Your task to perform on an android device: turn on notifications settings in the gmail app Image 0: 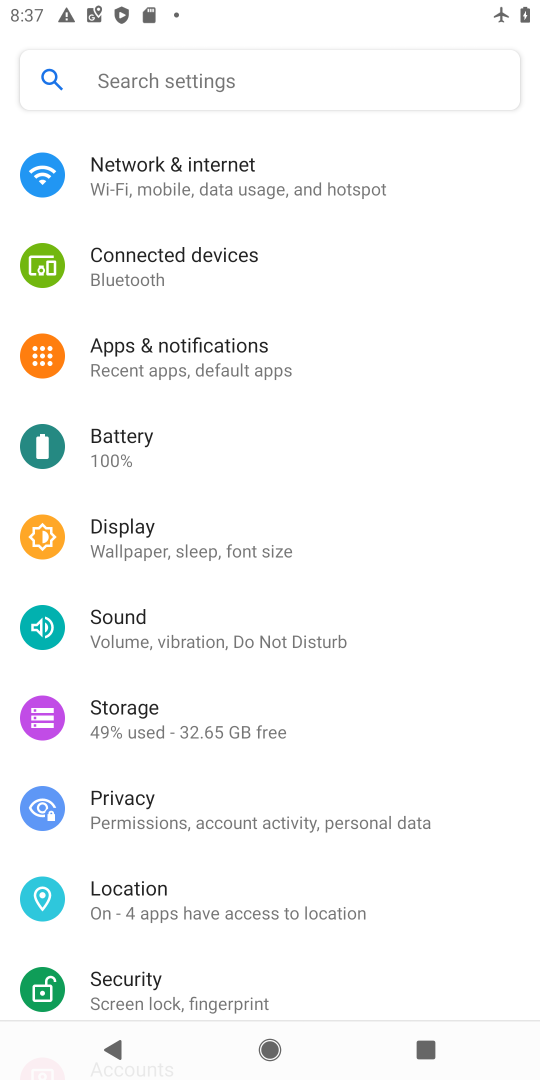
Step 0: press home button
Your task to perform on an android device: turn on notifications settings in the gmail app Image 1: 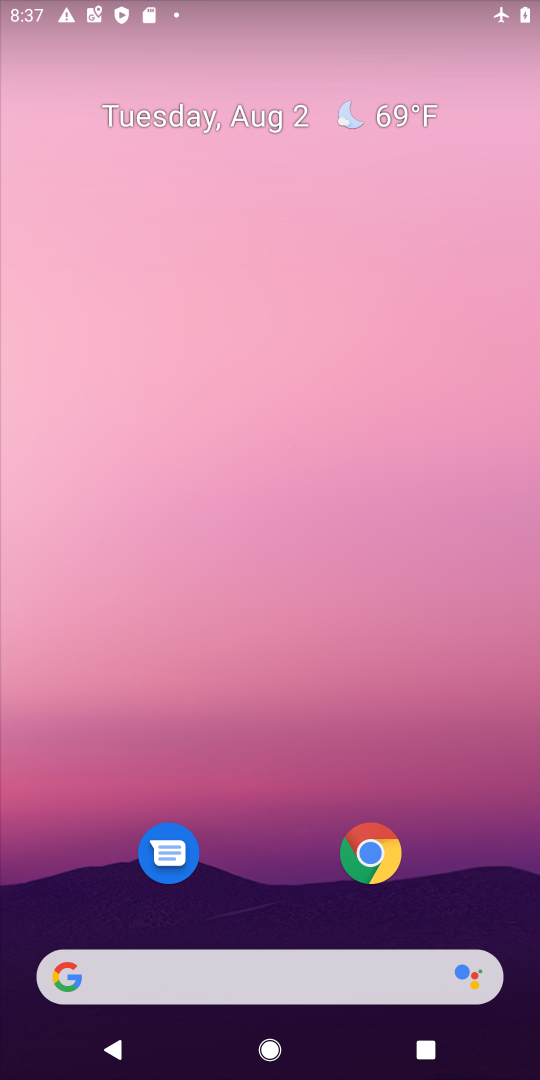
Step 1: drag from (233, 625) to (191, 85)
Your task to perform on an android device: turn on notifications settings in the gmail app Image 2: 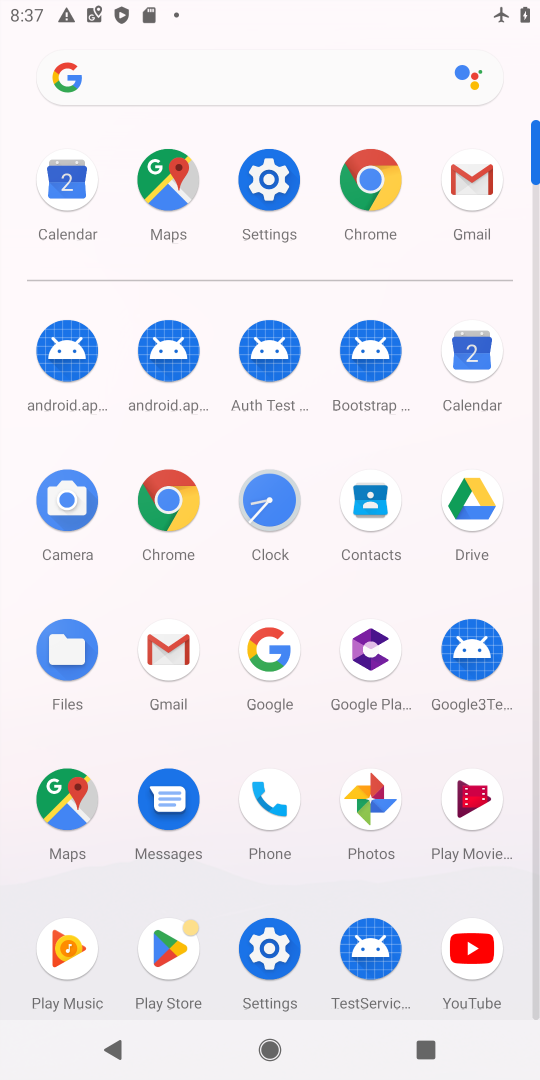
Step 2: click (469, 224)
Your task to perform on an android device: turn on notifications settings in the gmail app Image 3: 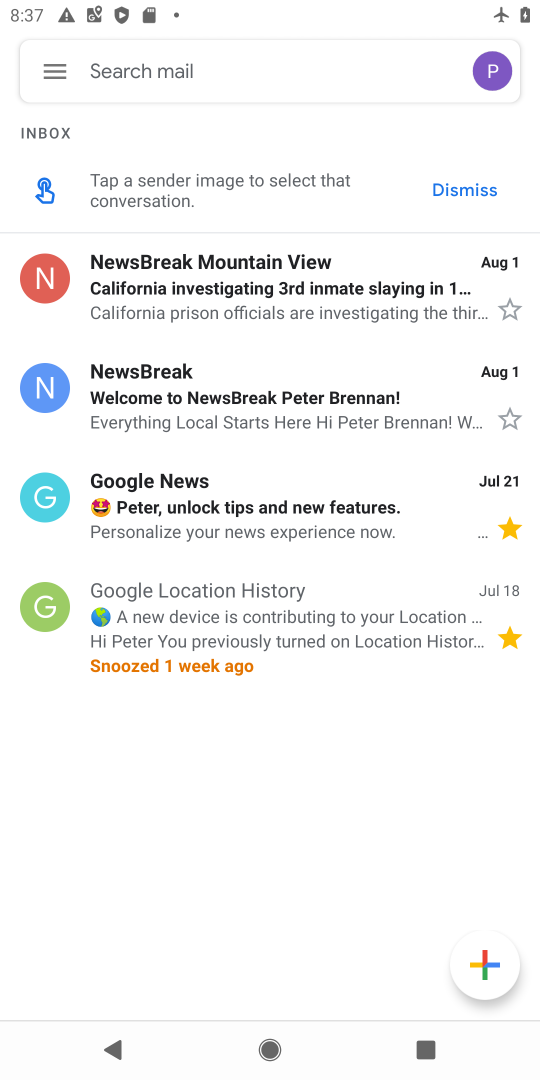
Step 3: click (52, 79)
Your task to perform on an android device: turn on notifications settings in the gmail app Image 4: 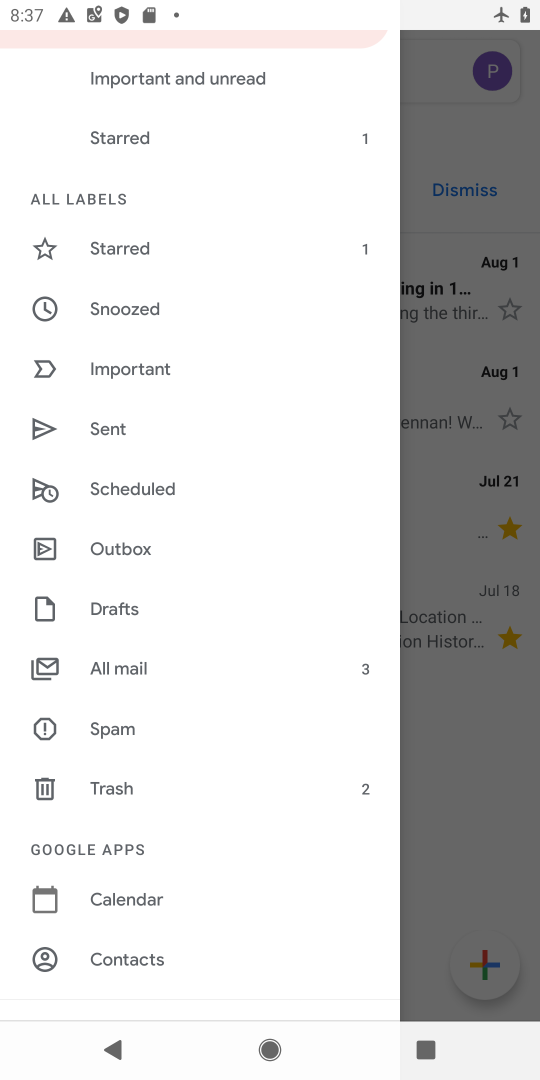
Step 4: drag from (138, 927) to (109, 665)
Your task to perform on an android device: turn on notifications settings in the gmail app Image 5: 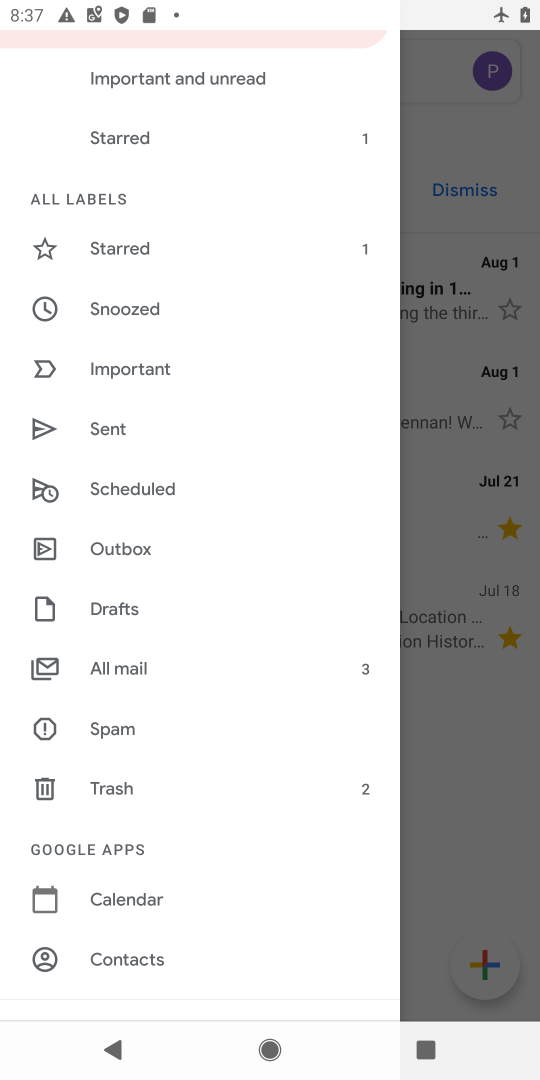
Step 5: drag from (228, 927) to (218, 661)
Your task to perform on an android device: turn on notifications settings in the gmail app Image 6: 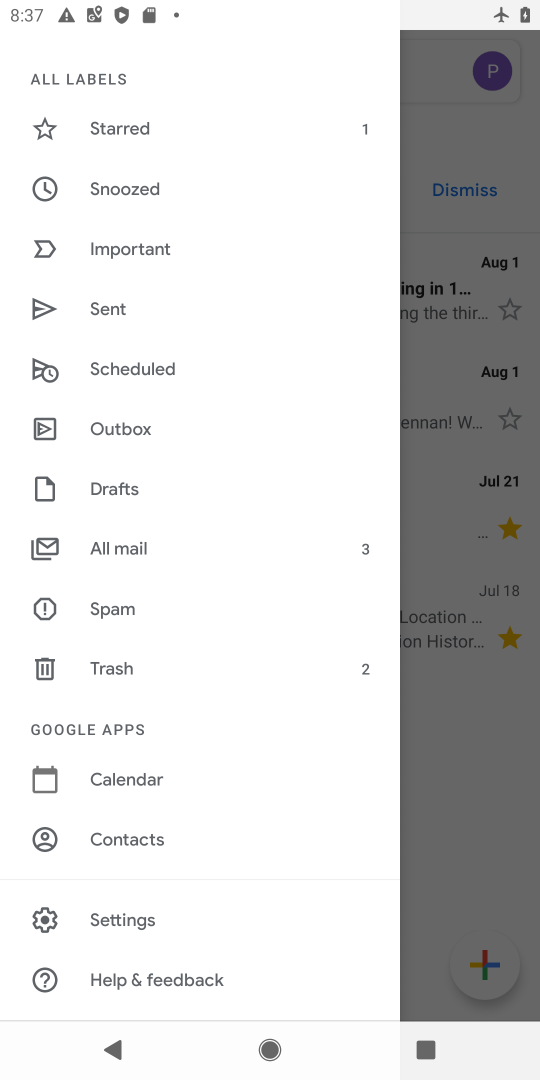
Step 6: click (130, 917)
Your task to perform on an android device: turn on notifications settings in the gmail app Image 7: 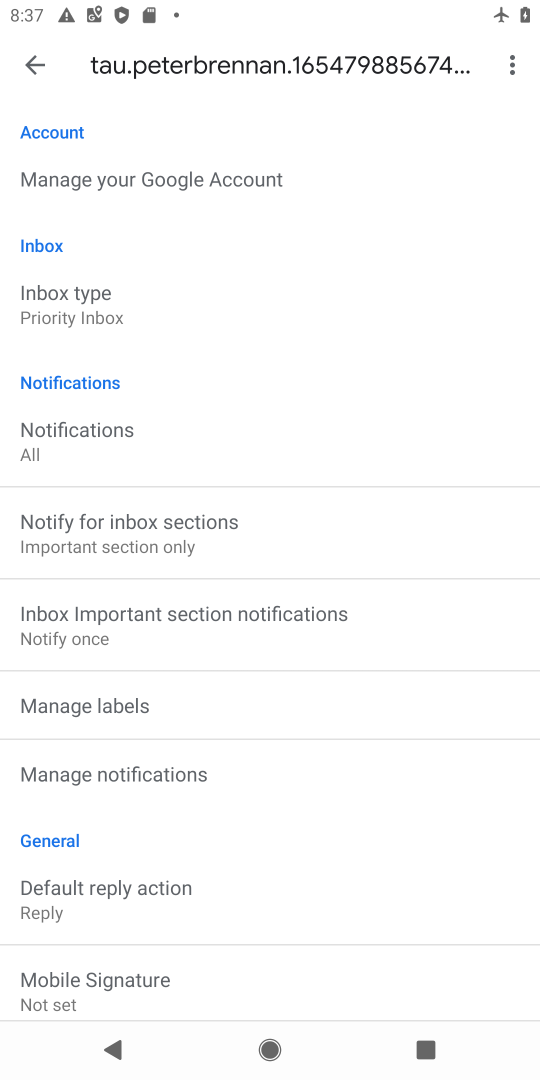
Step 7: click (93, 769)
Your task to perform on an android device: turn on notifications settings in the gmail app Image 8: 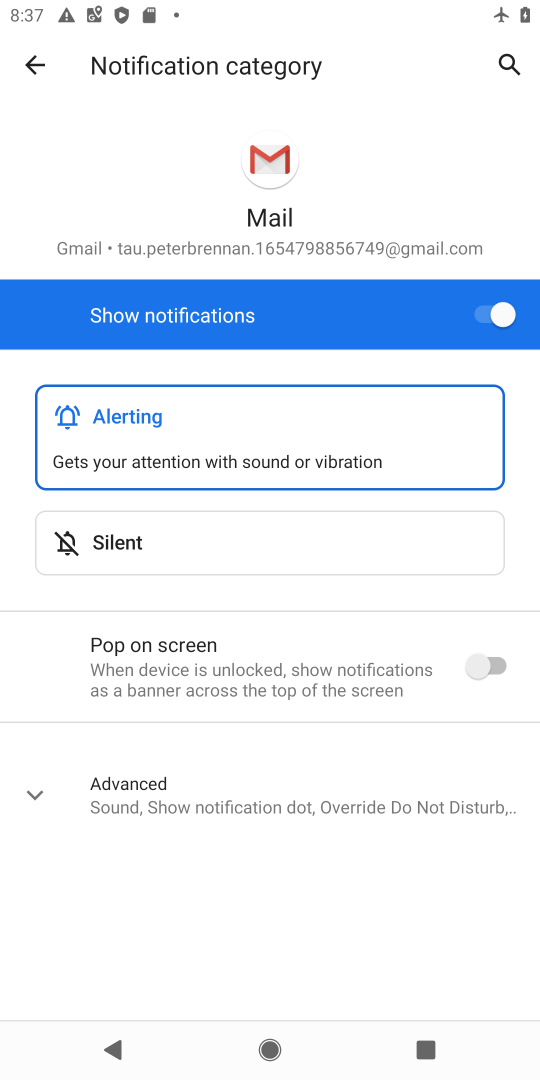
Step 8: task complete